Your task to perform on an android device: Open the calendar app, open the side menu, and click the "Day" option Image 0: 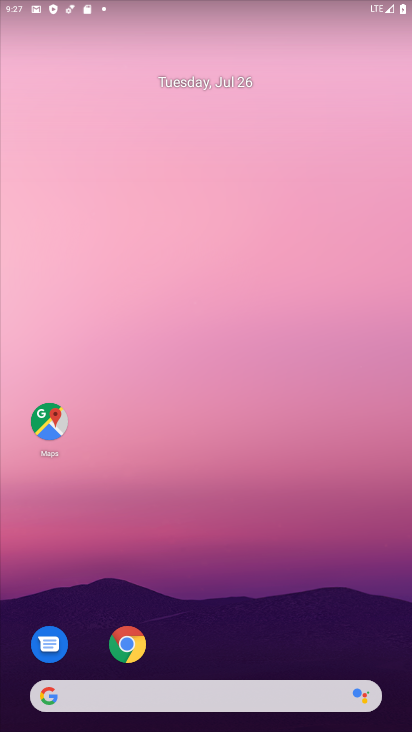
Step 0: drag from (258, 647) to (249, 65)
Your task to perform on an android device: Open the calendar app, open the side menu, and click the "Day" option Image 1: 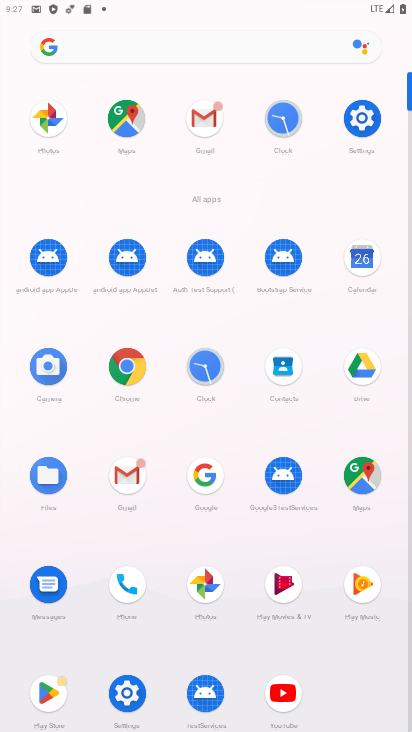
Step 1: click (357, 253)
Your task to perform on an android device: Open the calendar app, open the side menu, and click the "Day" option Image 2: 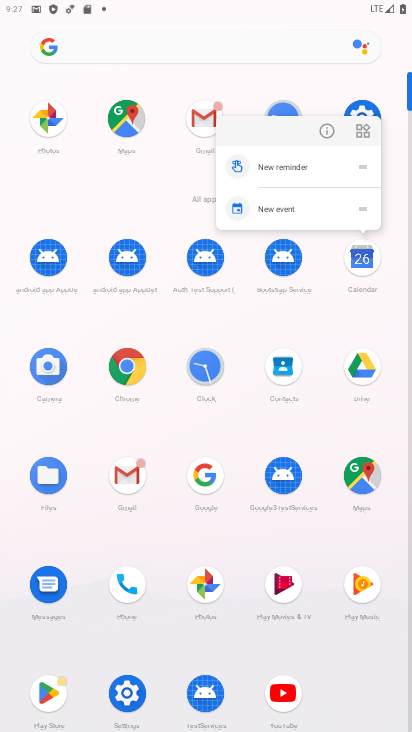
Step 2: click (365, 247)
Your task to perform on an android device: Open the calendar app, open the side menu, and click the "Day" option Image 3: 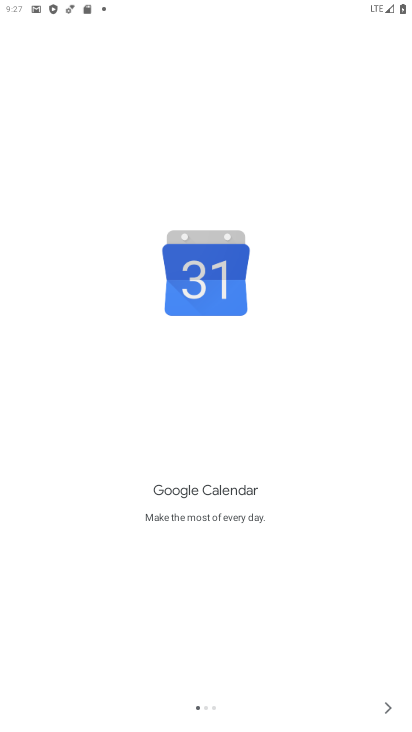
Step 3: click (382, 706)
Your task to perform on an android device: Open the calendar app, open the side menu, and click the "Day" option Image 4: 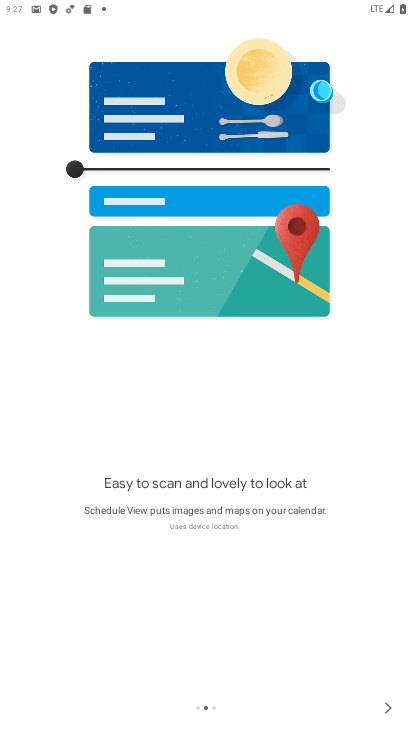
Step 4: click (381, 708)
Your task to perform on an android device: Open the calendar app, open the side menu, and click the "Day" option Image 5: 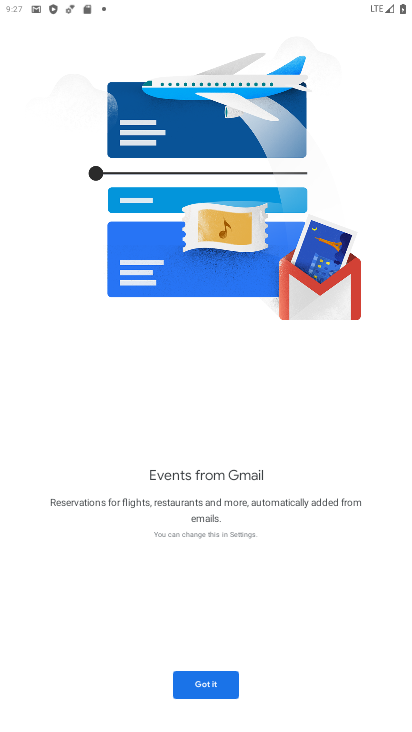
Step 5: click (200, 681)
Your task to perform on an android device: Open the calendar app, open the side menu, and click the "Day" option Image 6: 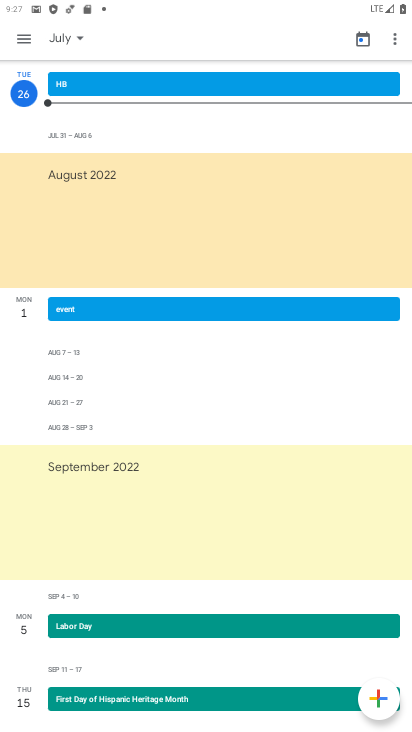
Step 6: click (29, 41)
Your task to perform on an android device: Open the calendar app, open the side menu, and click the "Day" option Image 7: 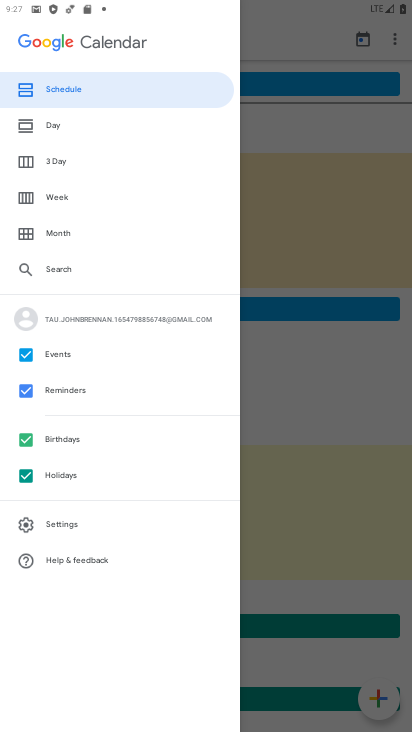
Step 7: click (48, 123)
Your task to perform on an android device: Open the calendar app, open the side menu, and click the "Day" option Image 8: 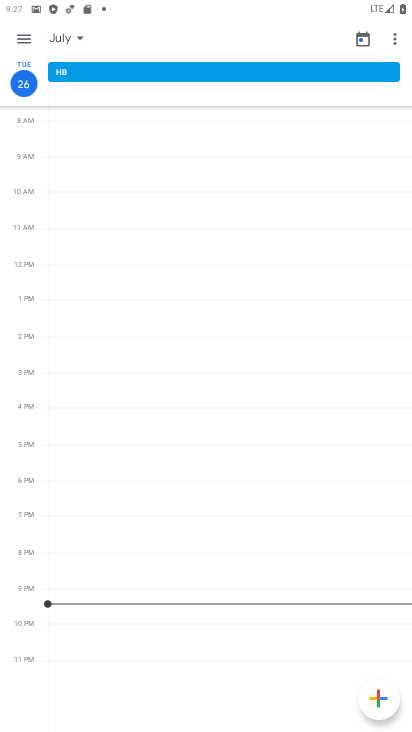
Step 8: task complete